Your task to perform on an android device: Open calendar and show me the second week of next month Image 0: 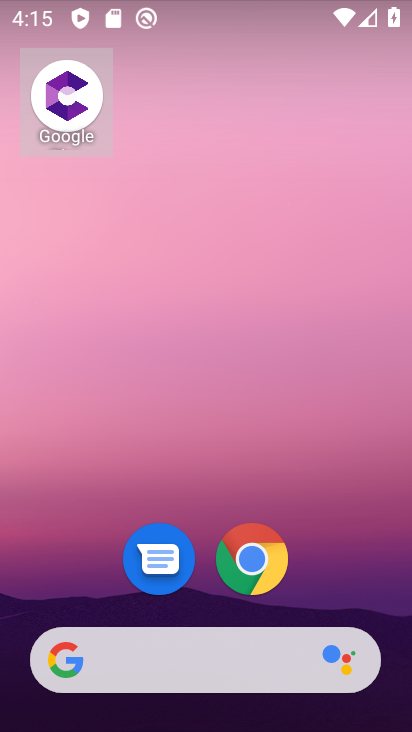
Step 0: drag from (116, 448) to (219, 14)
Your task to perform on an android device: Open calendar and show me the second week of next month Image 1: 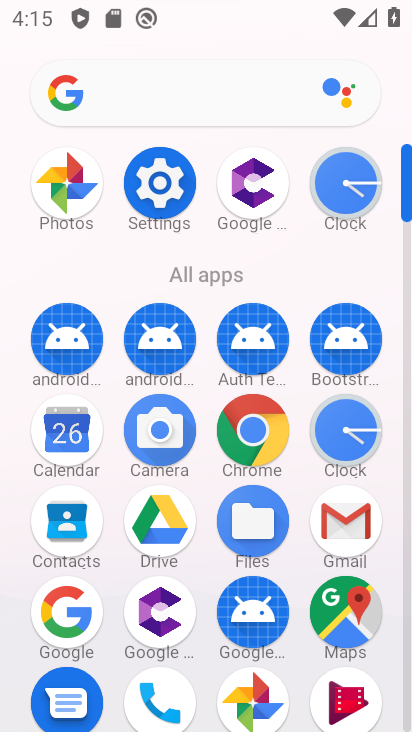
Step 1: click (71, 428)
Your task to perform on an android device: Open calendar and show me the second week of next month Image 2: 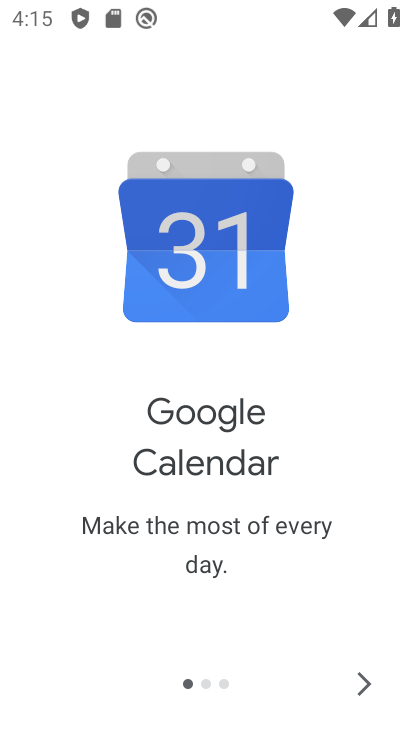
Step 2: click (358, 679)
Your task to perform on an android device: Open calendar and show me the second week of next month Image 3: 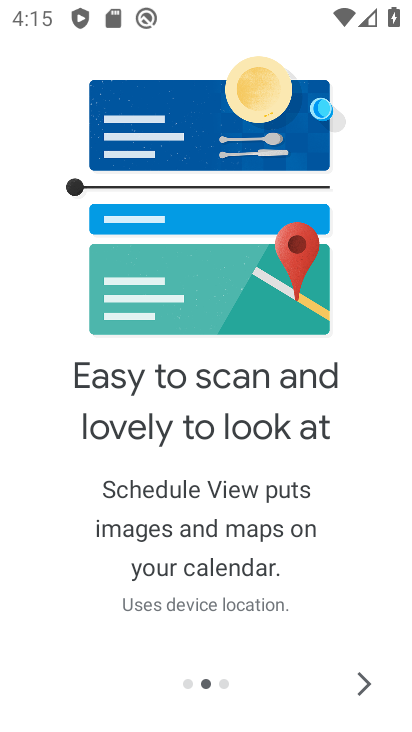
Step 3: click (348, 681)
Your task to perform on an android device: Open calendar and show me the second week of next month Image 4: 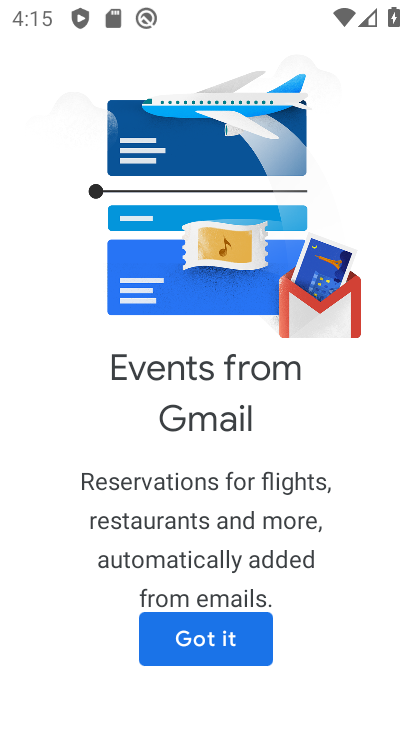
Step 4: click (180, 656)
Your task to perform on an android device: Open calendar and show me the second week of next month Image 5: 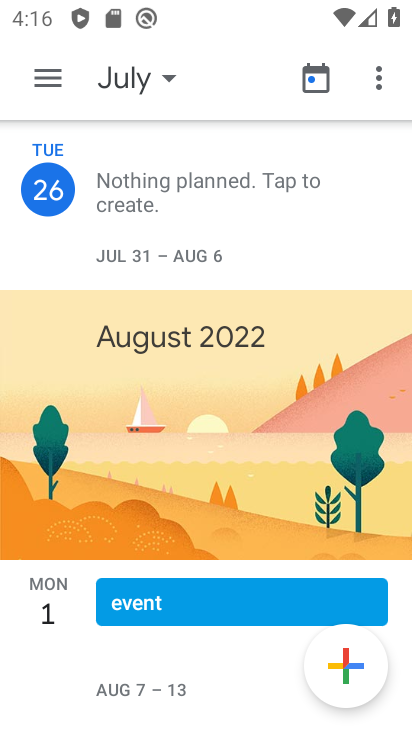
Step 5: click (151, 80)
Your task to perform on an android device: Open calendar and show me the second week of next month Image 6: 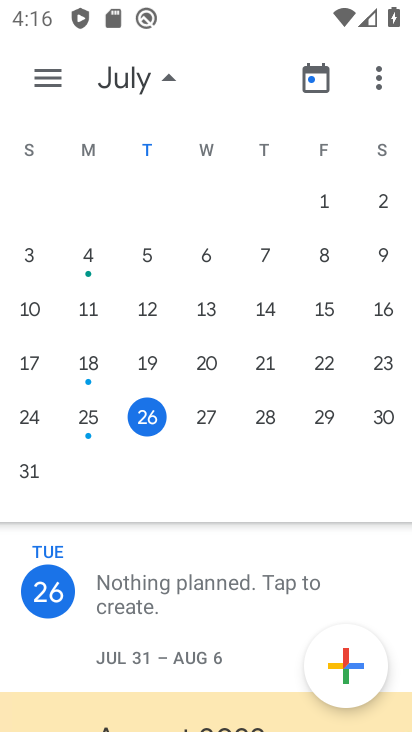
Step 6: drag from (375, 304) to (30, 343)
Your task to perform on an android device: Open calendar and show me the second week of next month Image 7: 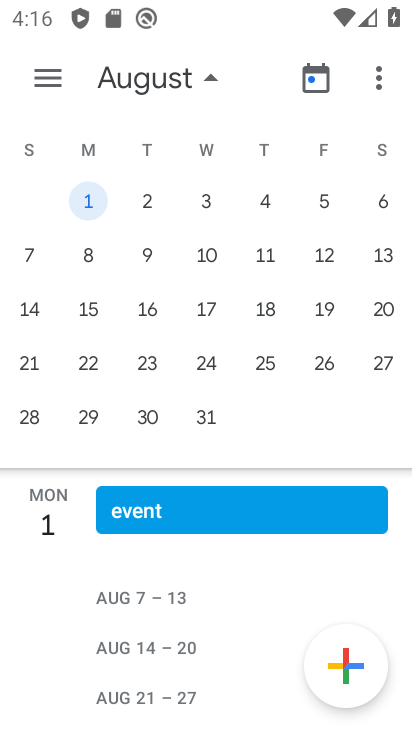
Step 7: click (91, 256)
Your task to perform on an android device: Open calendar and show me the second week of next month Image 8: 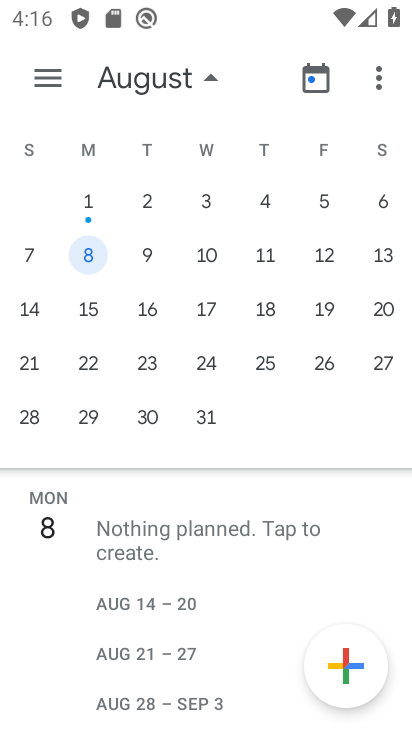
Step 8: task complete